Your task to perform on an android device: Open calendar and show me the fourth week of next month Image 0: 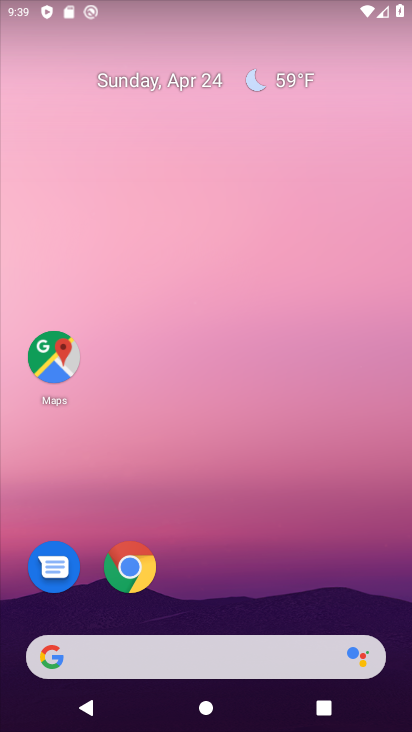
Step 0: drag from (342, 242) to (342, 203)
Your task to perform on an android device: Open calendar and show me the fourth week of next month Image 1: 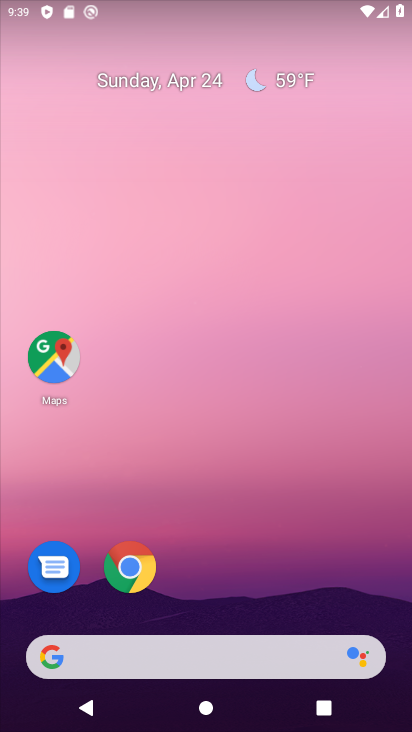
Step 1: drag from (391, 567) to (381, 276)
Your task to perform on an android device: Open calendar and show me the fourth week of next month Image 2: 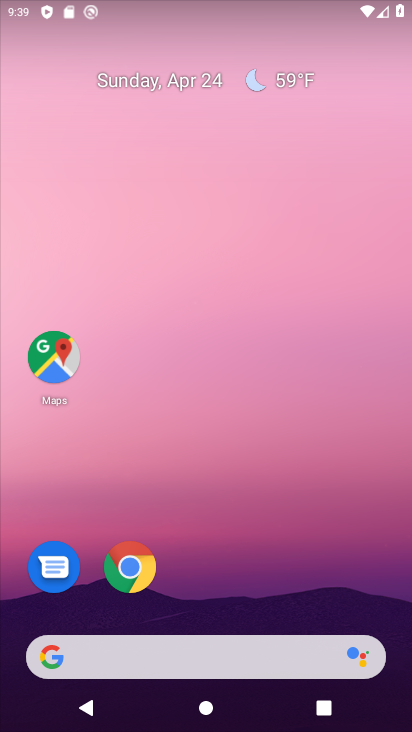
Step 2: drag from (354, 302) to (344, 196)
Your task to perform on an android device: Open calendar and show me the fourth week of next month Image 3: 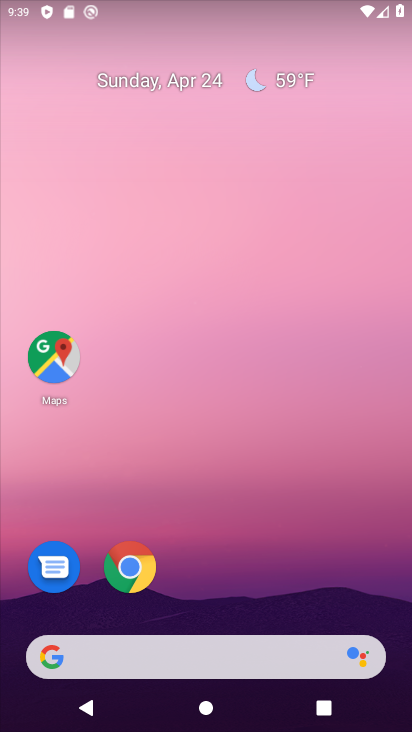
Step 3: drag from (382, 277) to (374, 202)
Your task to perform on an android device: Open calendar and show me the fourth week of next month Image 4: 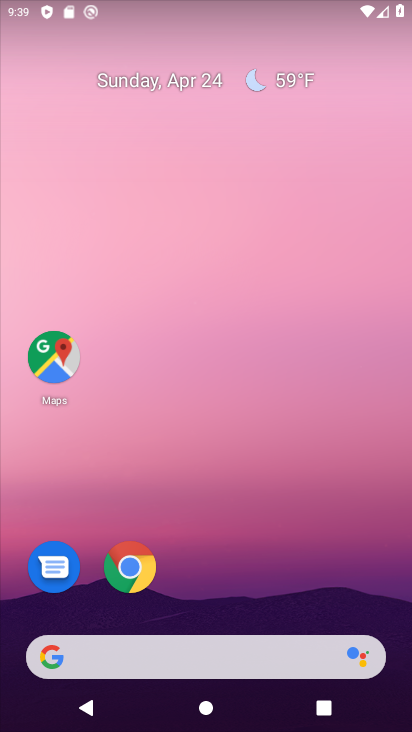
Step 4: drag from (405, 654) to (358, 141)
Your task to perform on an android device: Open calendar and show me the fourth week of next month Image 5: 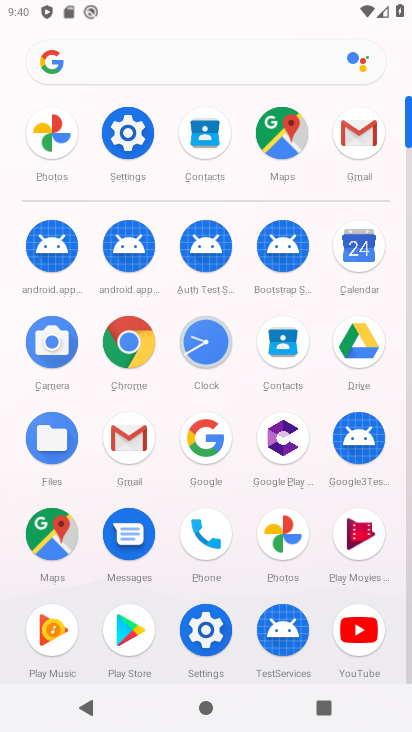
Step 5: click (352, 241)
Your task to perform on an android device: Open calendar and show me the fourth week of next month Image 6: 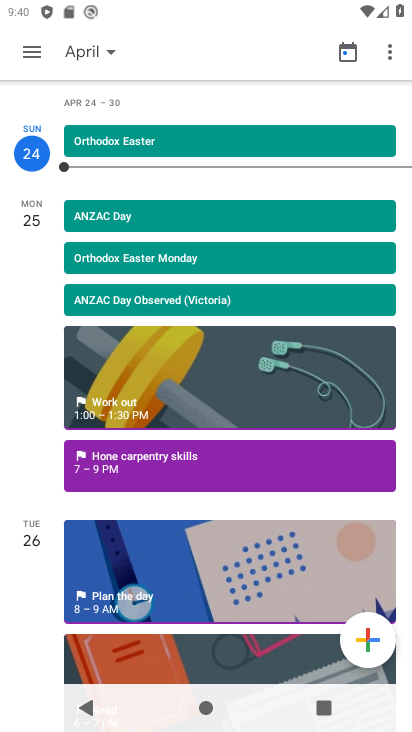
Step 6: click (102, 48)
Your task to perform on an android device: Open calendar and show me the fourth week of next month Image 7: 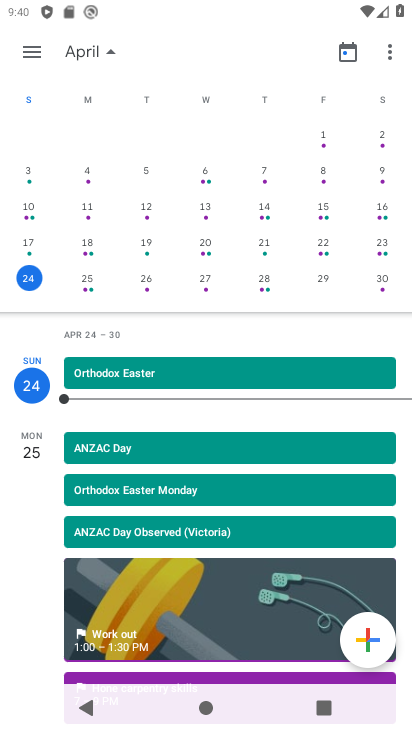
Step 7: drag from (398, 192) to (48, 182)
Your task to perform on an android device: Open calendar and show me the fourth week of next month Image 8: 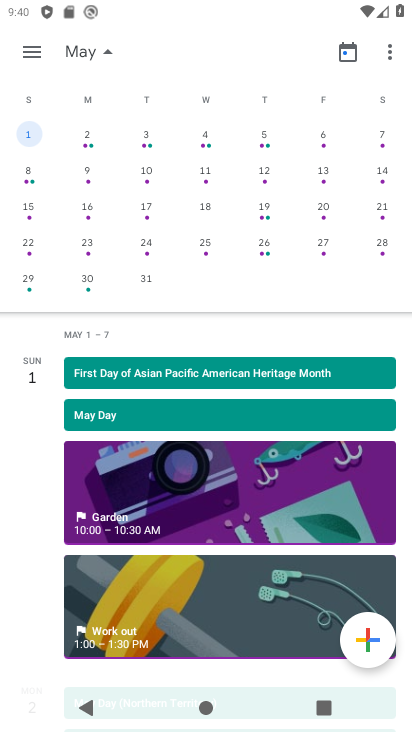
Step 8: click (257, 243)
Your task to perform on an android device: Open calendar and show me the fourth week of next month Image 9: 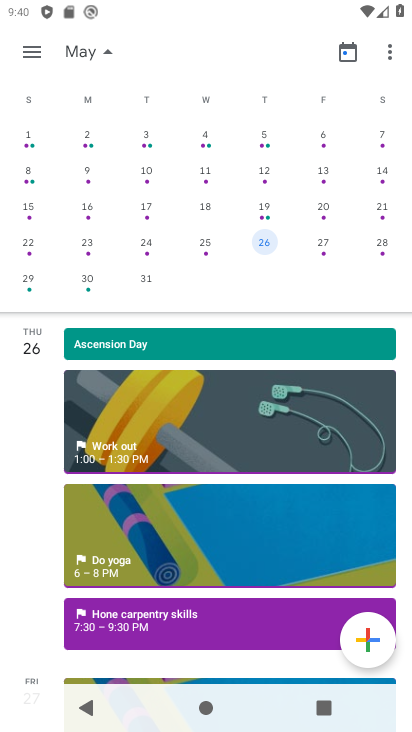
Step 9: task complete